Your task to perform on an android device: install app "Spotify" Image 0: 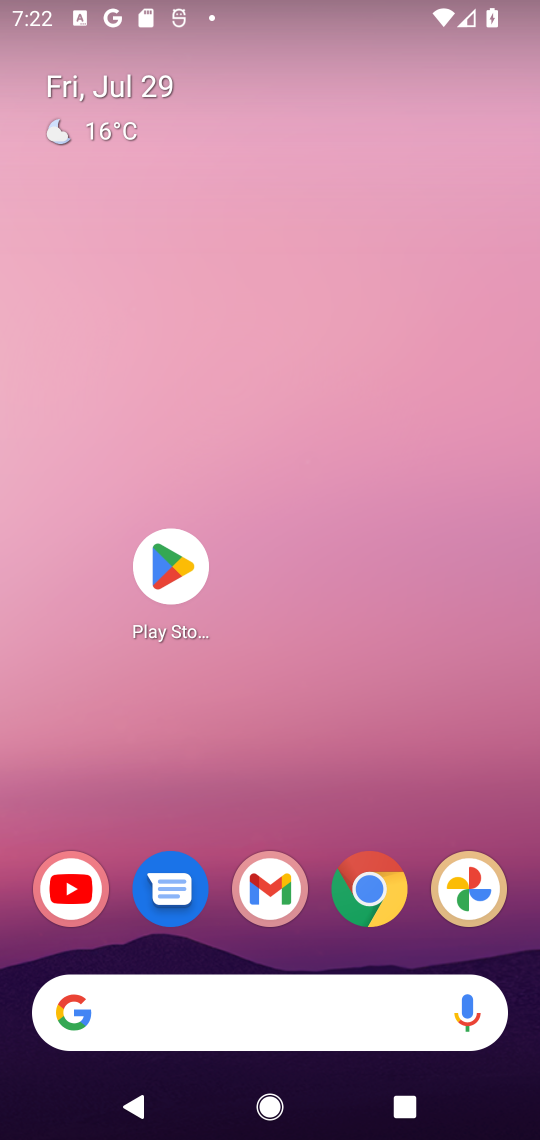
Step 0: click (168, 574)
Your task to perform on an android device: install app "Spotify" Image 1: 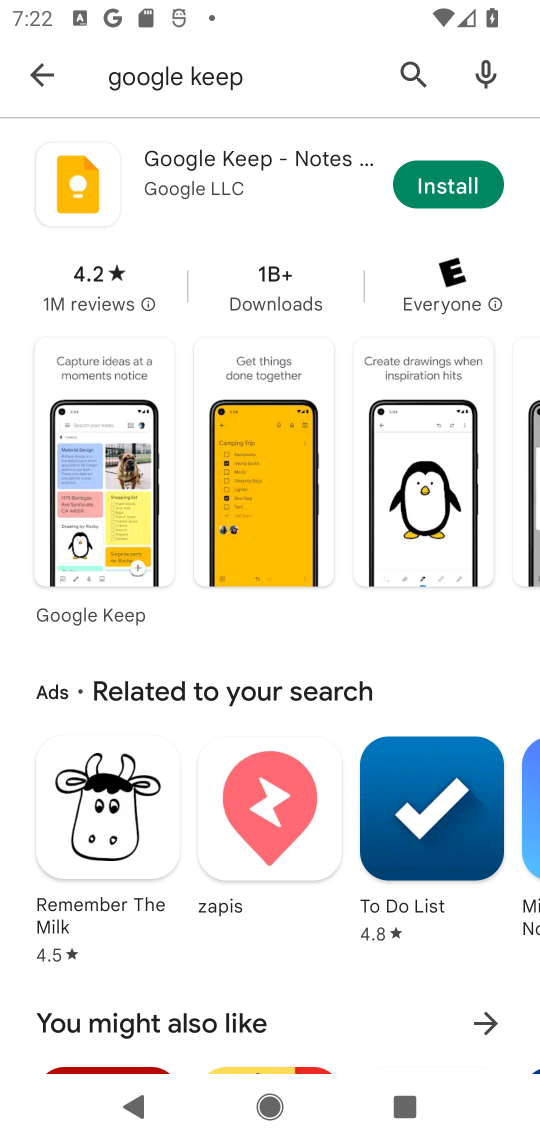
Step 1: click (414, 66)
Your task to perform on an android device: install app "Spotify" Image 2: 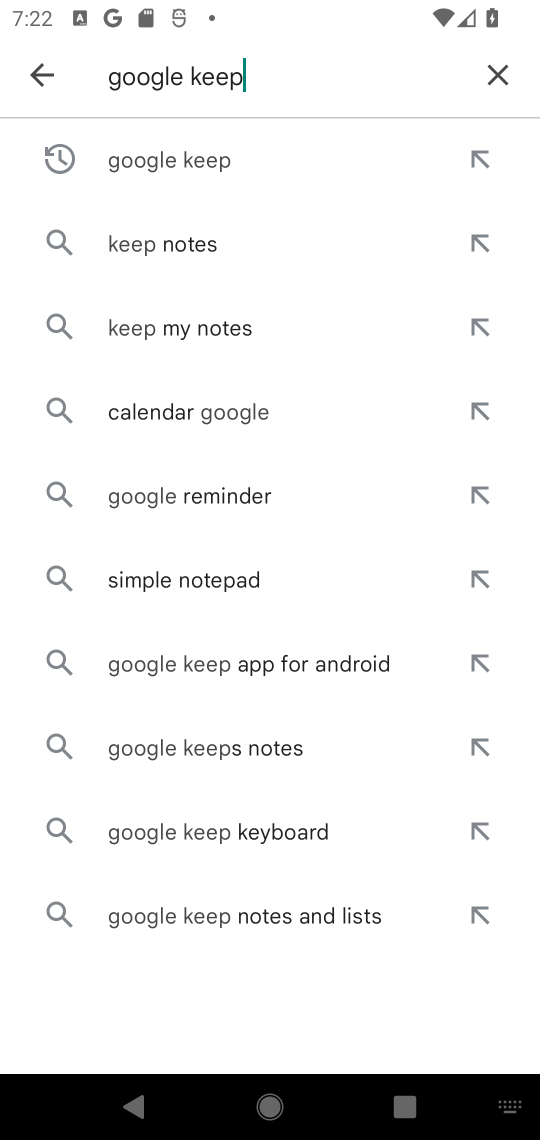
Step 2: click (492, 72)
Your task to perform on an android device: install app "Spotify" Image 3: 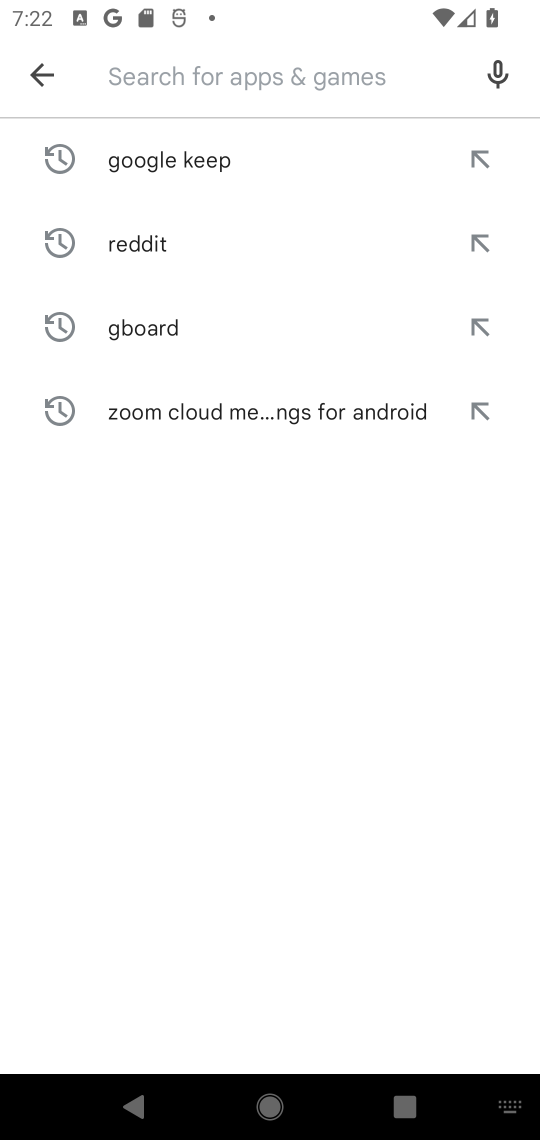
Step 3: type "Spotify"
Your task to perform on an android device: install app "Spotify" Image 4: 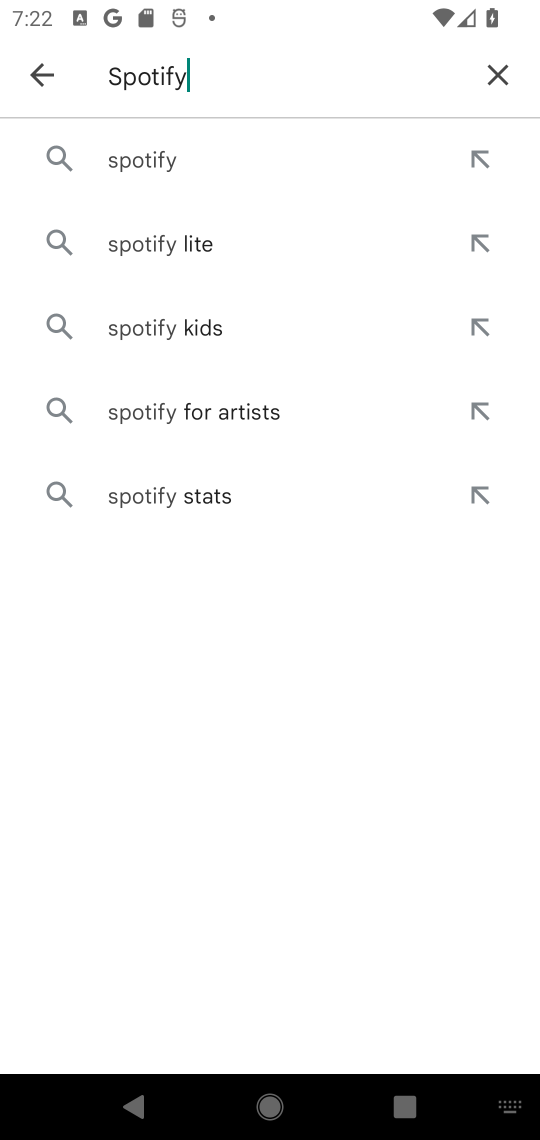
Step 4: click (119, 152)
Your task to perform on an android device: install app "Spotify" Image 5: 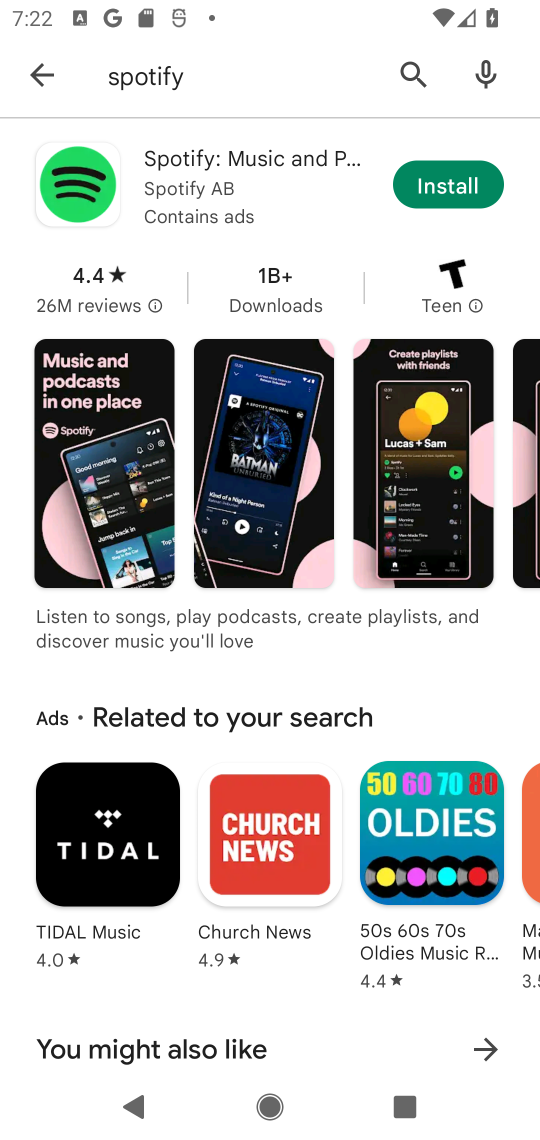
Step 5: click (427, 186)
Your task to perform on an android device: install app "Spotify" Image 6: 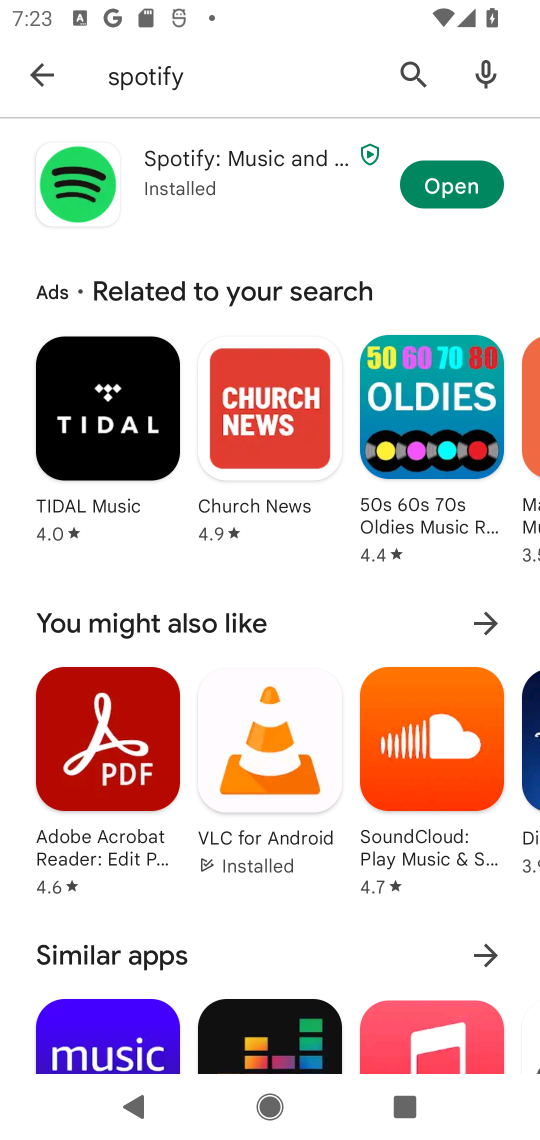
Step 6: task complete